Your task to perform on an android device: Open maps Image 0: 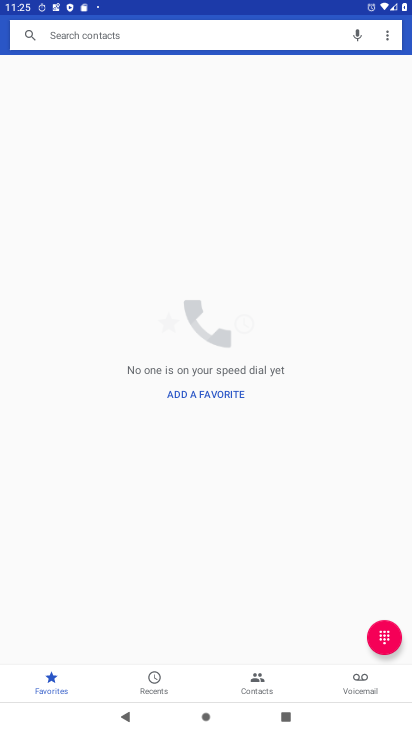
Step 0: press home button
Your task to perform on an android device: Open maps Image 1: 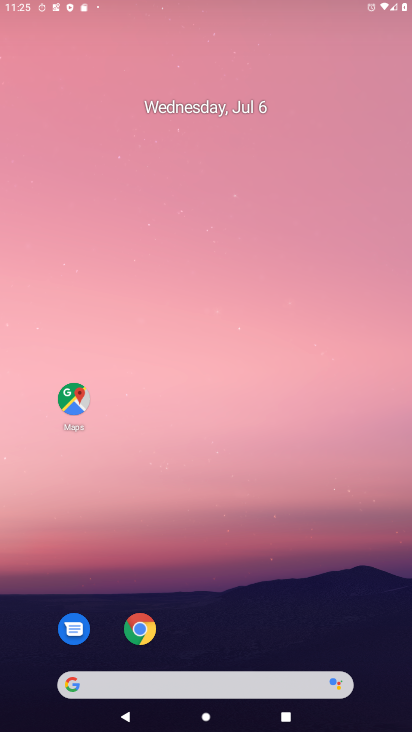
Step 1: drag from (192, 628) to (240, 42)
Your task to perform on an android device: Open maps Image 2: 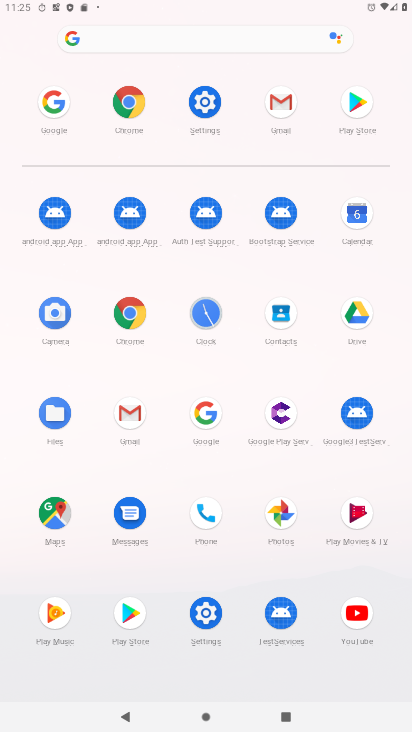
Step 2: click (62, 520)
Your task to perform on an android device: Open maps Image 3: 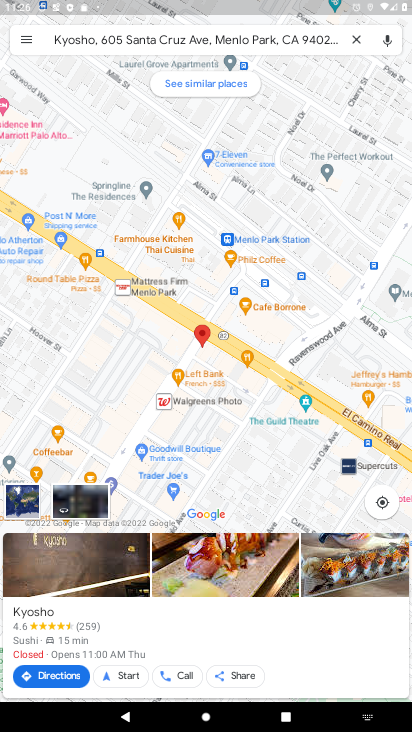
Step 3: task complete